Your task to perform on an android device: toggle airplane mode Image 0: 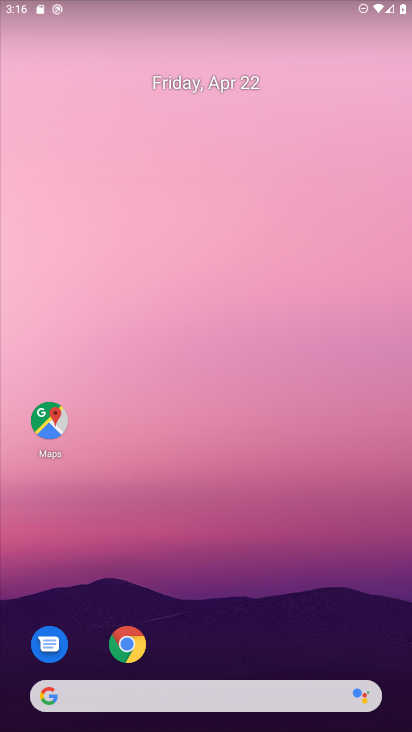
Step 0: drag from (278, 206) to (276, 126)
Your task to perform on an android device: toggle airplane mode Image 1: 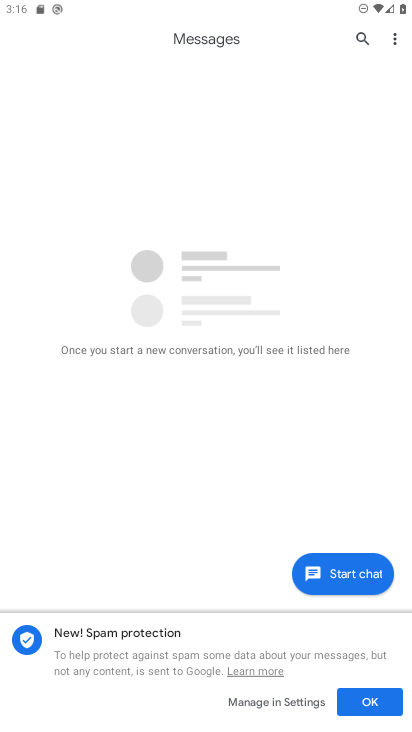
Step 1: press home button
Your task to perform on an android device: toggle airplane mode Image 2: 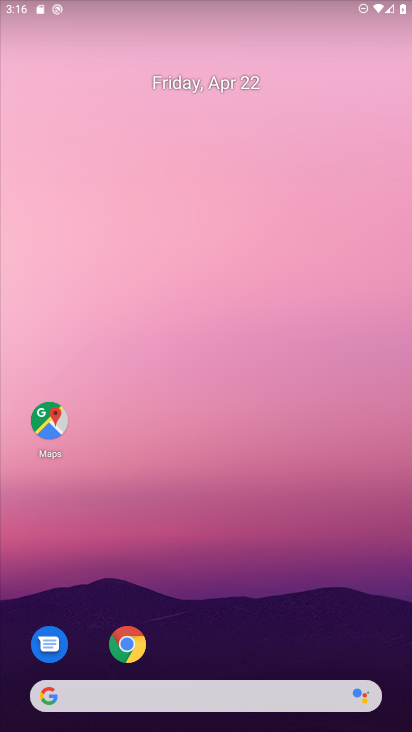
Step 2: drag from (265, 645) to (308, 163)
Your task to perform on an android device: toggle airplane mode Image 3: 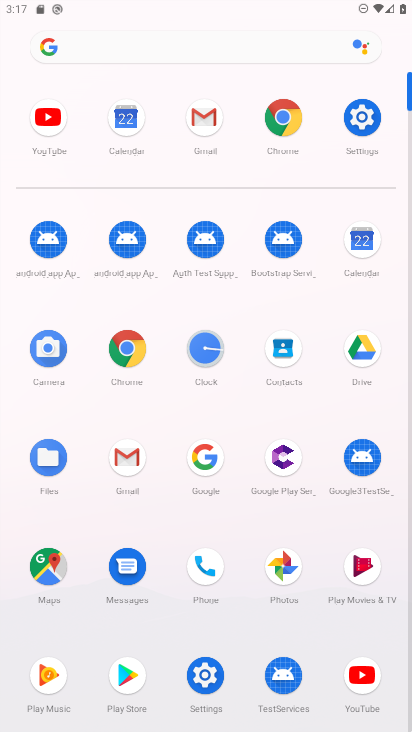
Step 3: click (354, 111)
Your task to perform on an android device: toggle airplane mode Image 4: 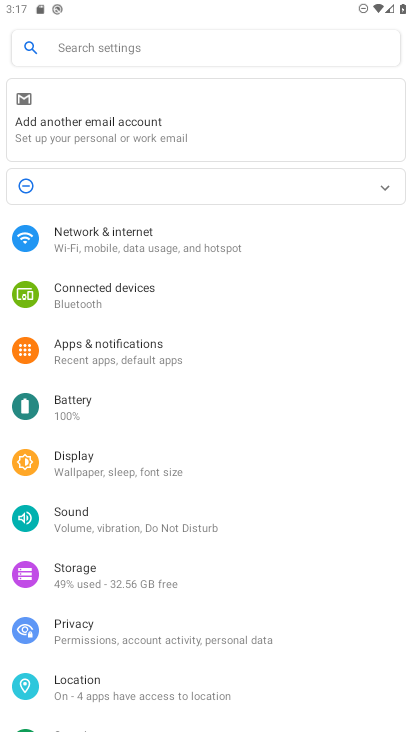
Step 4: click (123, 250)
Your task to perform on an android device: toggle airplane mode Image 5: 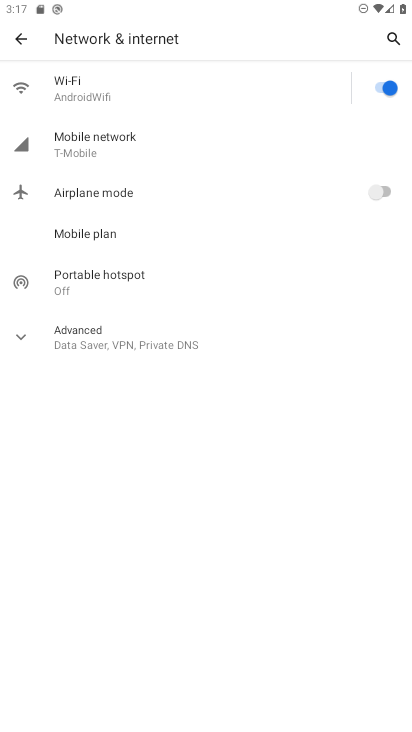
Step 5: click (386, 196)
Your task to perform on an android device: toggle airplane mode Image 6: 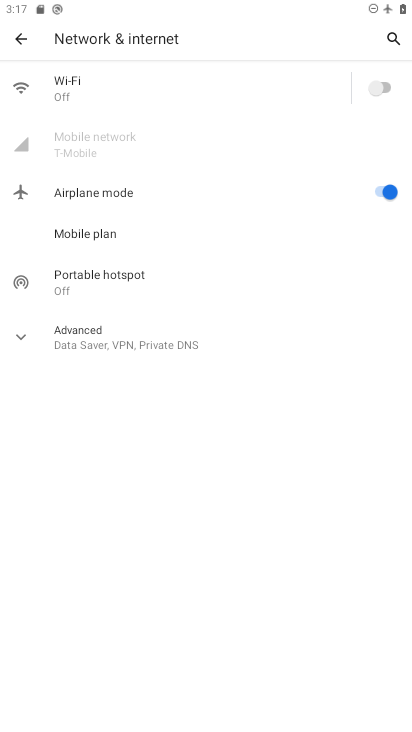
Step 6: task complete